Your task to perform on an android device: Search for Italian restaurants on Maps Image 0: 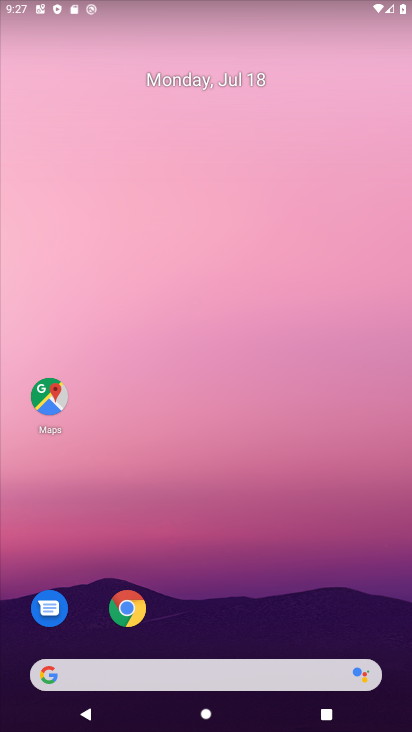
Step 0: drag from (218, 630) to (227, 165)
Your task to perform on an android device: Search for Italian restaurants on Maps Image 1: 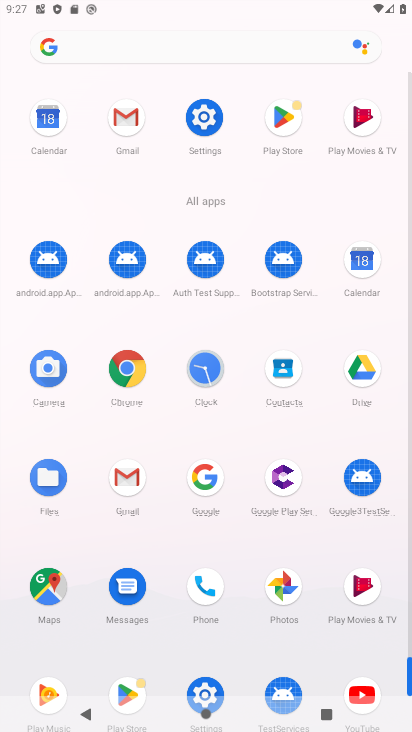
Step 1: click (53, 585)
Your task to perform on an android device: Search for Italian restaurants on Maps Image 2: 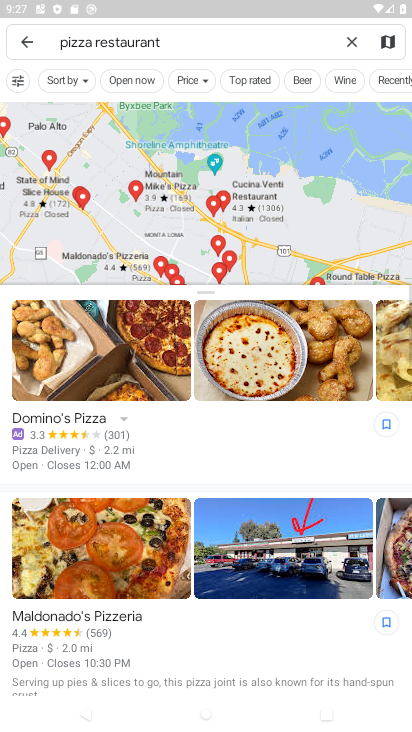
Step 2: click (352, 47)
Your task to perform on an android device: Search for Italian restaurants on Maps Image 3: 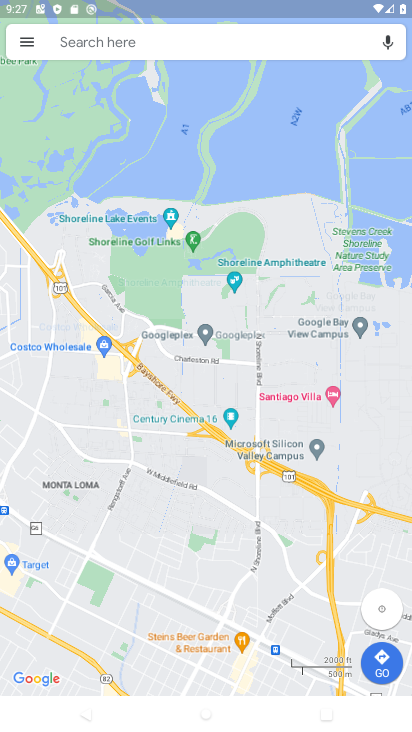
Step 3: click (191, 47)
Your task to perform on an android device: Search for Italian restaurants on Maps Image 4: 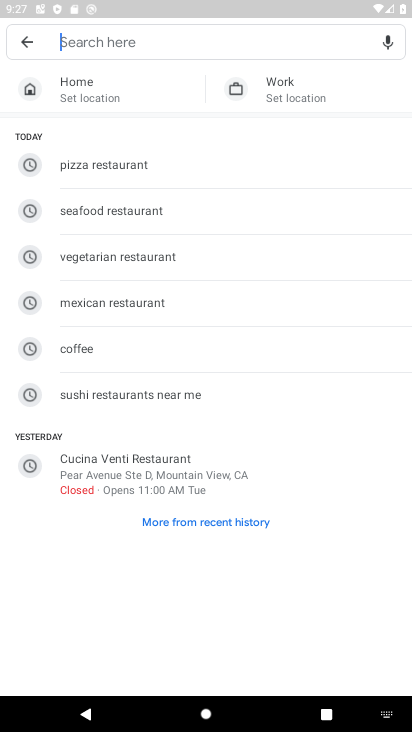
Step 4: type "italian restaurants"
Your task to perform on an android device: Search for Italian restaurants on Maps Image 5: 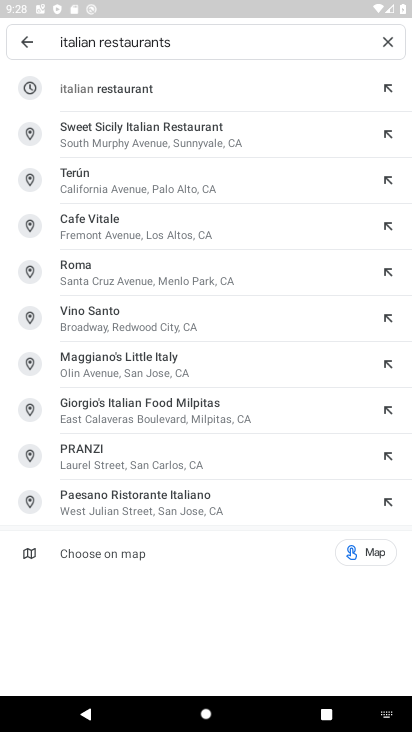
Step 5: click (149, 94)
Your task to perform on an android device: Search for Italian restaurants on Maps Image 6: 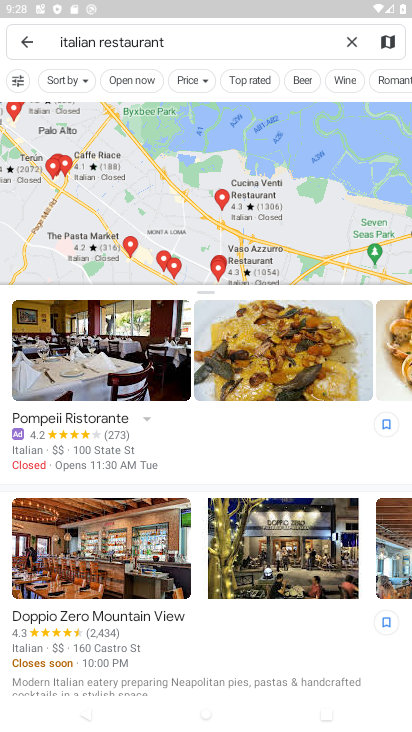
Step 6: task complete